Your task to perform on an android device: Search for good Greek restaurants Image 0: 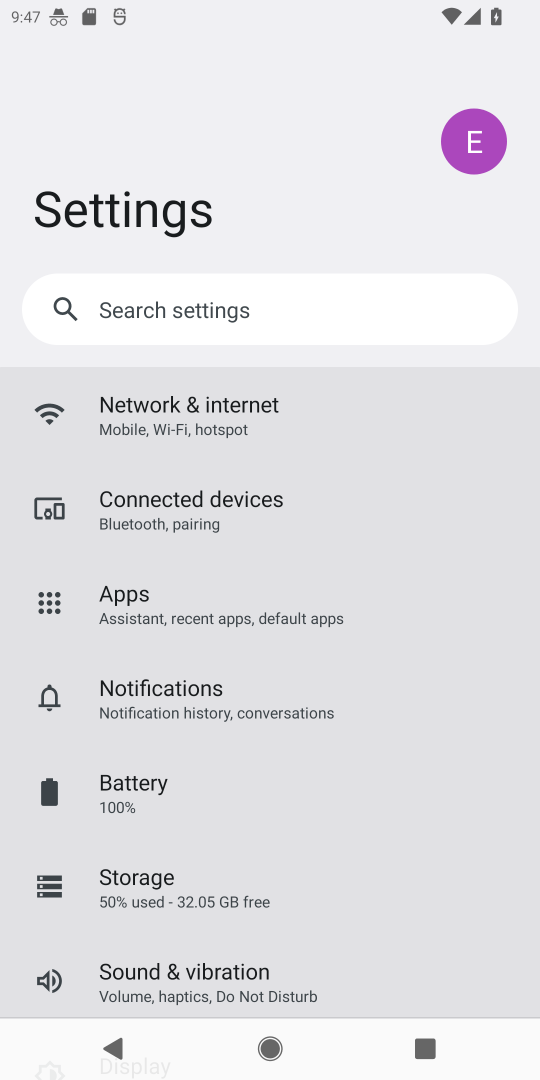
Step 0: press home button
Your task to perform on an android device: Search for good Greek restaurants Image 1: 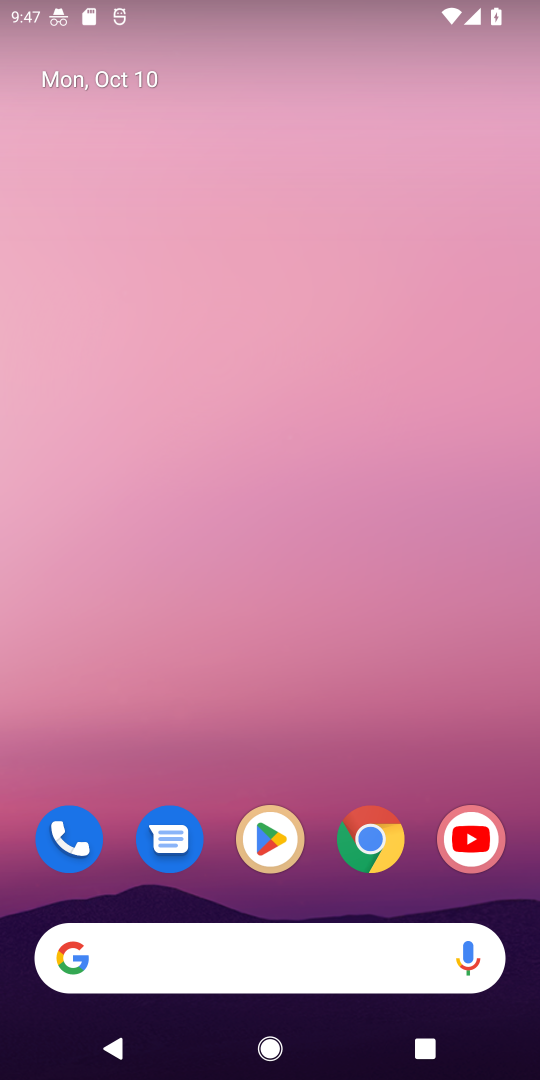
Step 1: drag from (310, 761) to (428, 62)
Your task to perform on an android device: Search for good Greek restaurants Image 2: 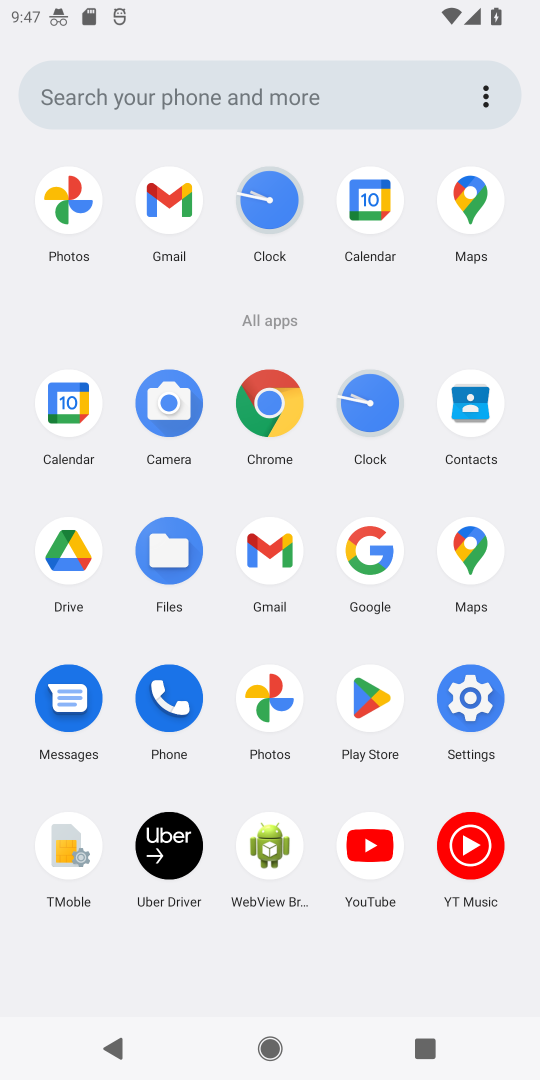
Step 2: click (266, 402)
Your task to perform on an android device: Search for good Greek restaurants Image 3: 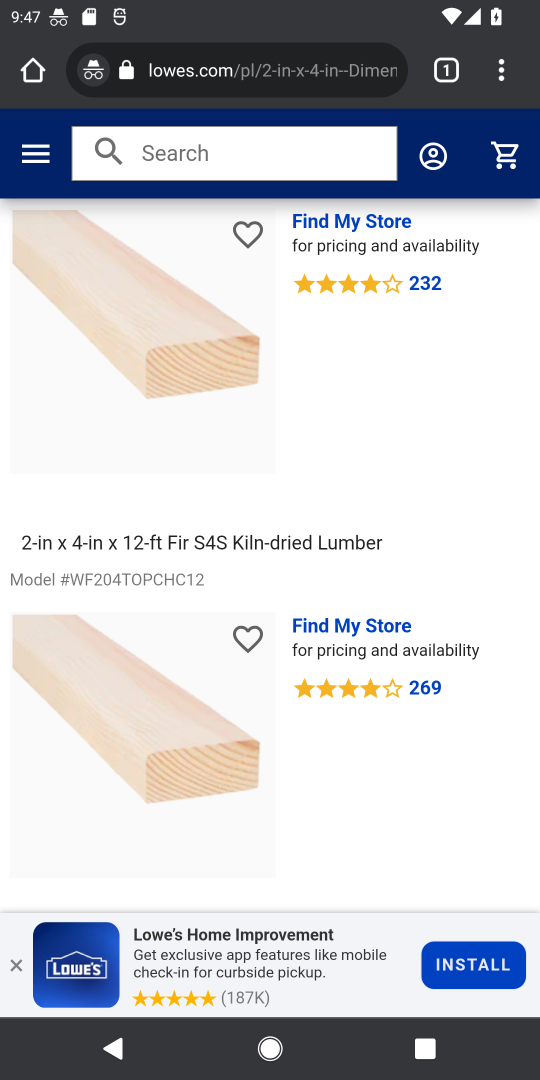
Step 3: click (269, 77)
Your task to perform on an android device: Search for good Greek restaurants Image 4: 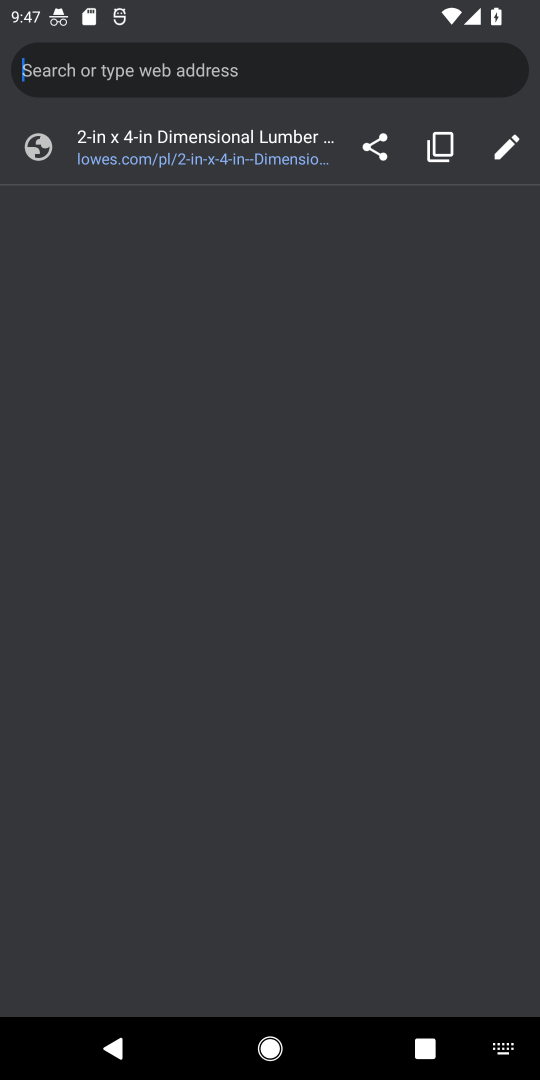
Step 4: type "good Greek restaurants"
Your task to perform on an android device: Search for good Greek restaurants Image 5: 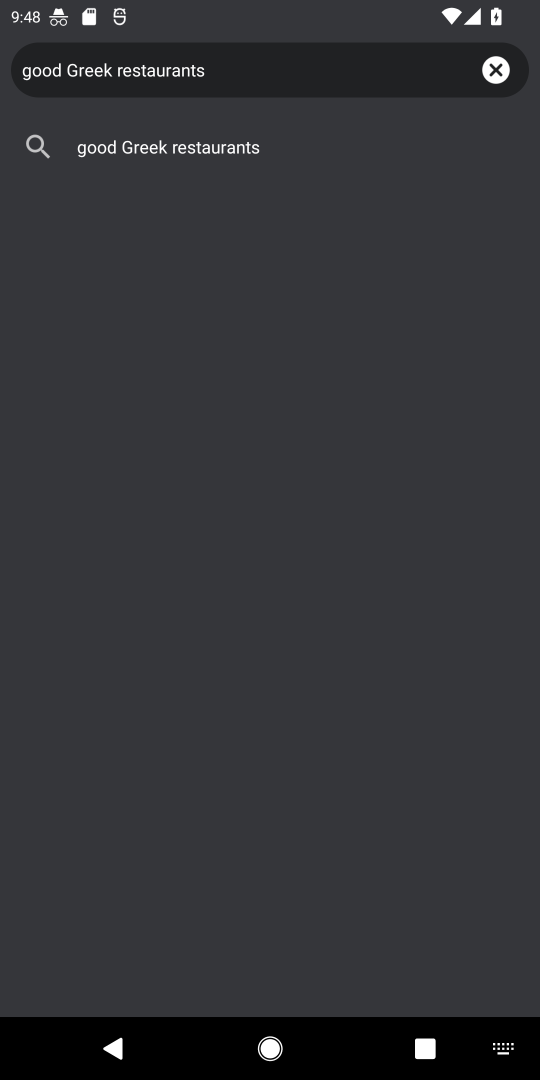
Step 5: press enter
Your task to perform on an android device: Search for good Greek restaurants Image 6: 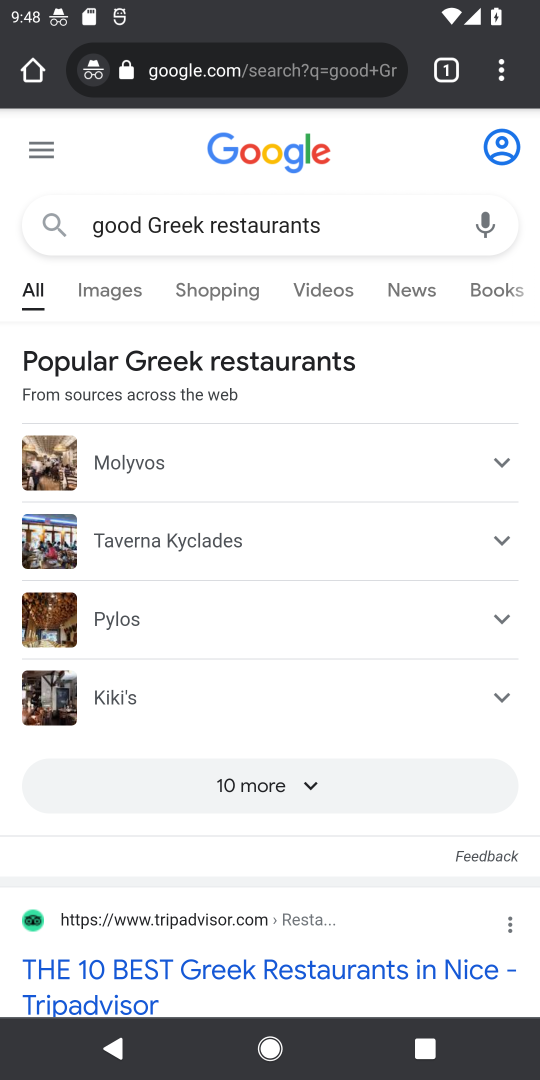
Step 6: task complete